Your task to perform on an android device: toggle sleep mode Image 0: 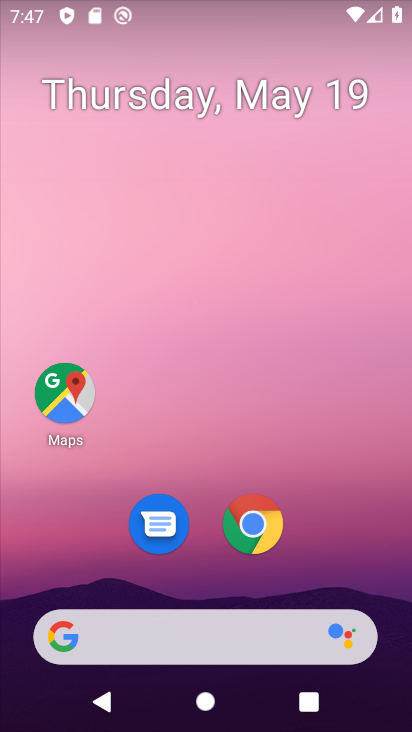
Step 0: drag from (310, 470) to (244, 5)
Your task to perform on an android device: toggle sleep mode Image 1: 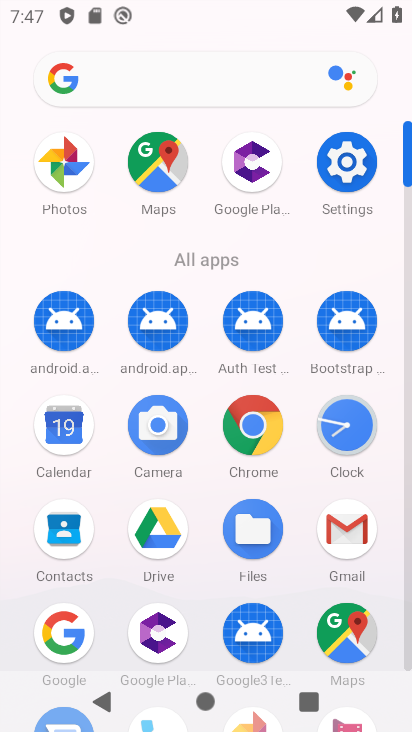
Step 1: click (352, 174)
Your task to perform on an android device: toggle sleep mode Image 2: 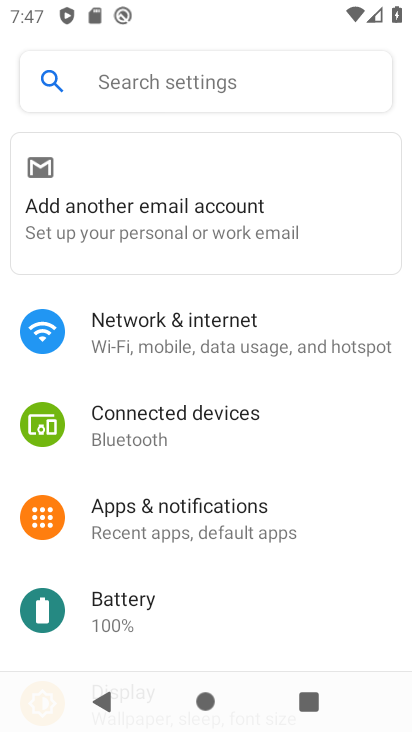
Step 2: drag from (259, 464) to (232, 160)
Your task to perform on an android device: toggle sleep mode Image 3: 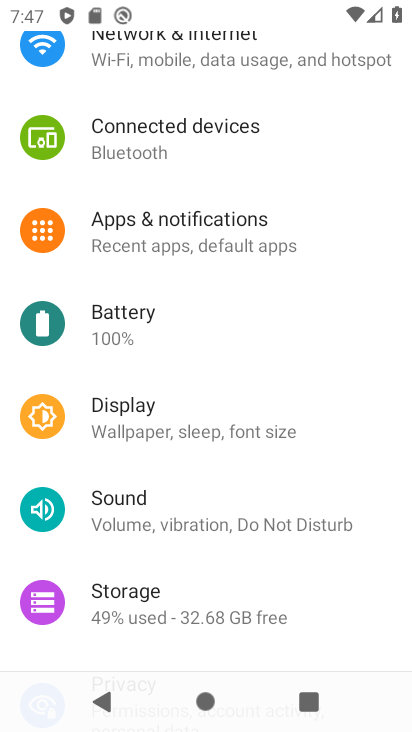
Step 3: click (194, 427)
Your task to perform on an android device: toggle sleep mode Image 4: 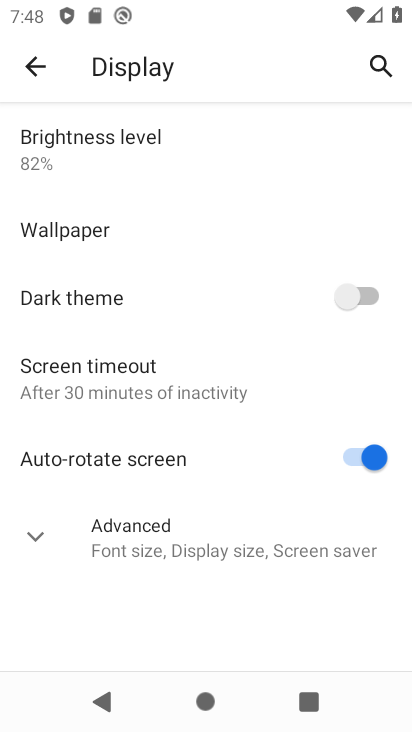
Step 4: click (36, 528)
Your task to perform on an android device: toggle sleep mode Image 5: 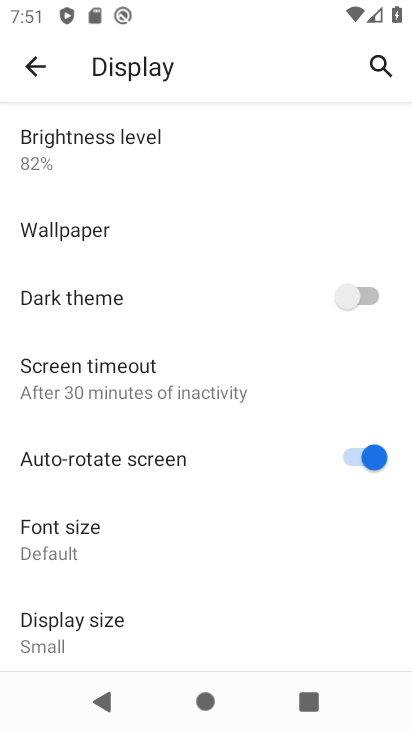
Step 5: task complete